Your task to perform on an android device: Open the Play Movies app and select the watchlist tab. Image 0: 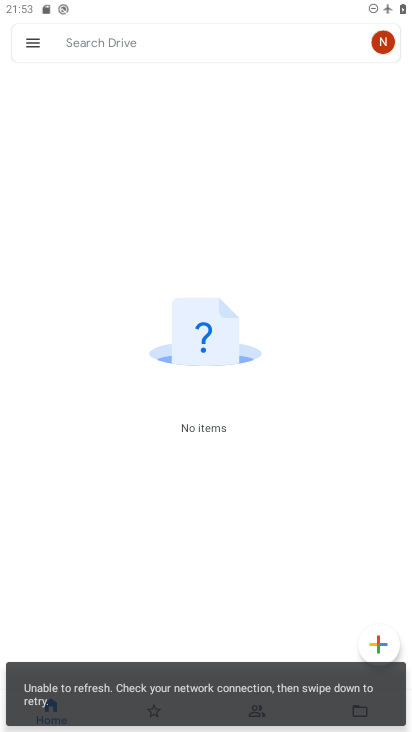
Step 0: press home button
Your task to perform on an android device: Open the Play Movies app and select the watchlist tab. Image 1: 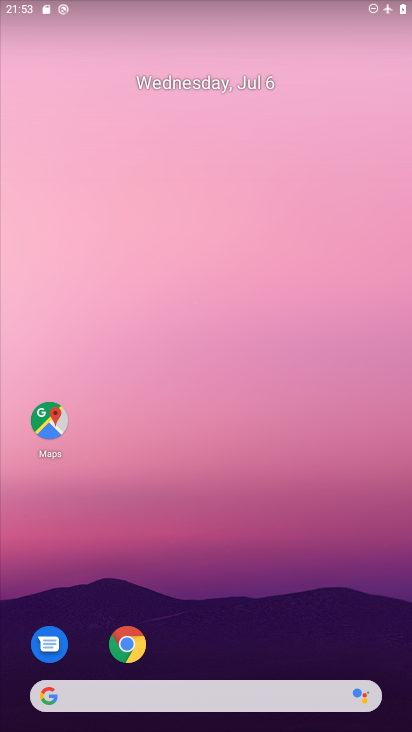
Step 1: drag from (214, 632) to (222, 125)
Your task to perform on an android device: Open the Play Movies app and select the watchlist tab. Image 2: 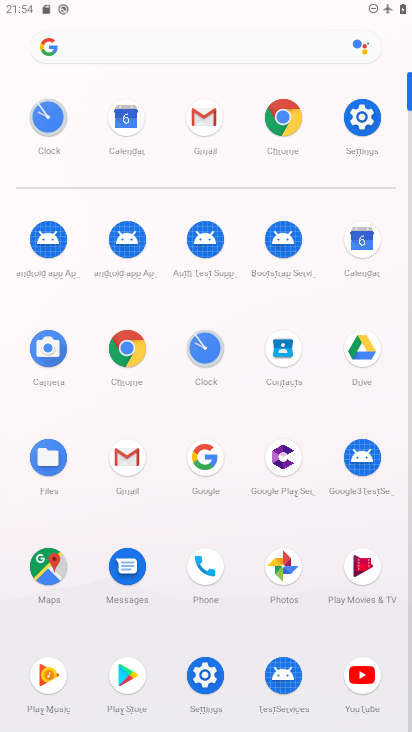
Step 2: click (372, 563)
Your task to perform on an android device: Open the Play Movies app and select the watchlist tab. Image 3: 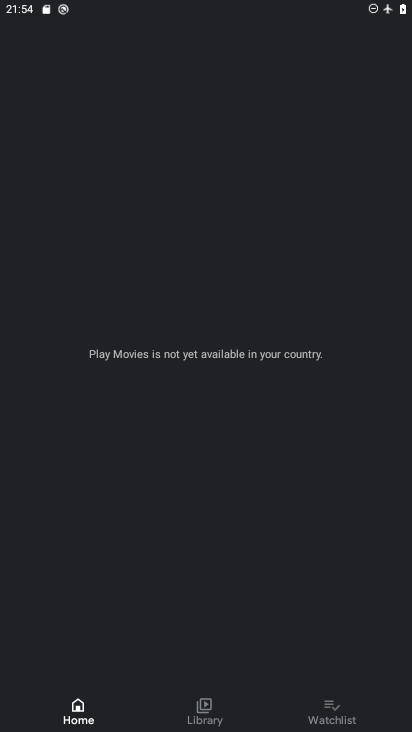
Step 3: click (318, 692)
Your task to perform on an android device: Open the Play Movies app and select the watchlist tab. Image 4: 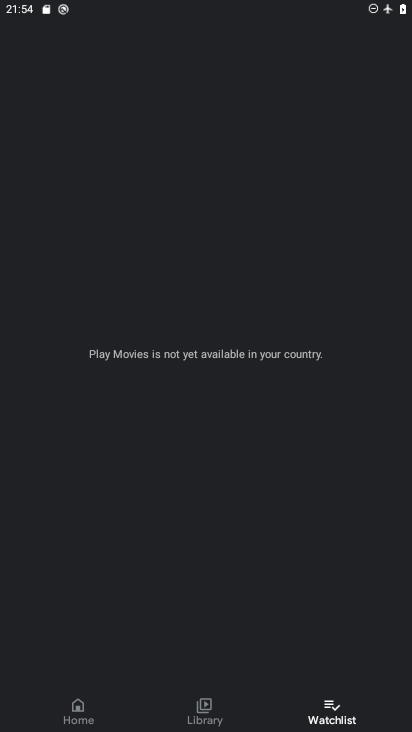
Step 4: press home button
Your task to perform on an android device: Open the Play Movies app and select the watchlist tab. Image 5: 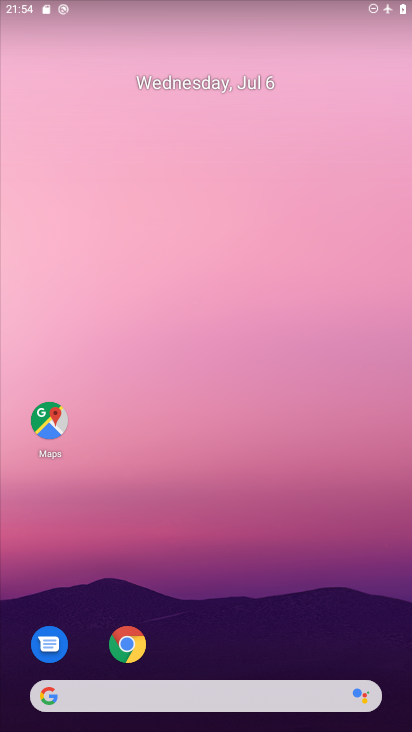
Step 5: drag from (238, 636) to (251, 134)
Your task to perform on an android device: Open the Play Movies app and select the watchlist tab. Image 6: 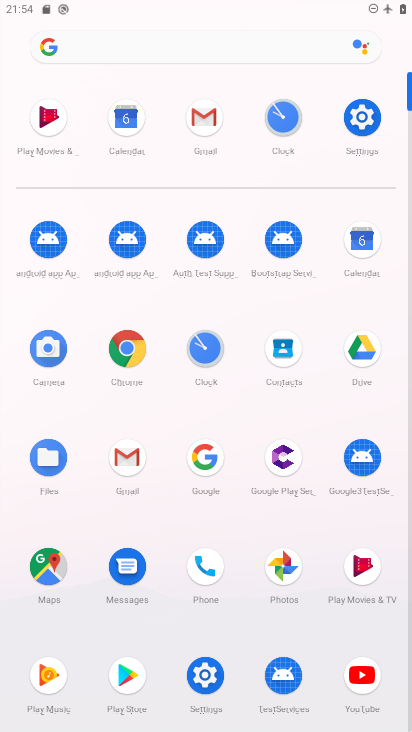
Step 6: click (359, 573)
Your task to perform on an android device: Open the Play Movies app and select the watchlist tab. Image 7: 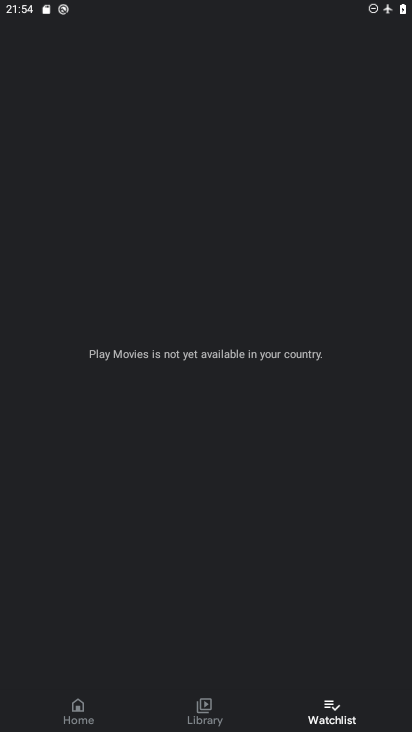
Step 7: task complete